Your task to perform on an android device: turn off location history Image 0: 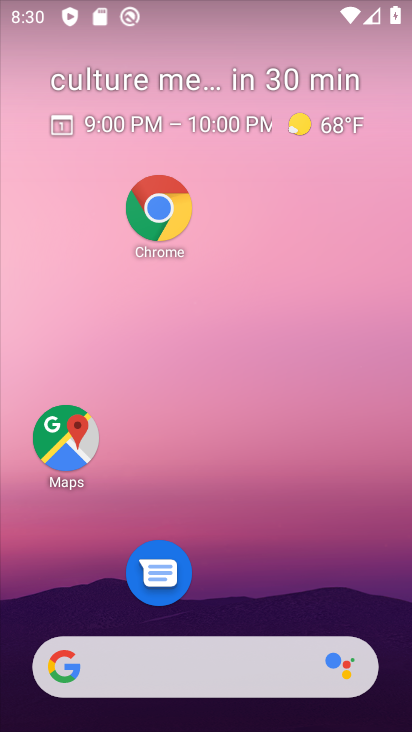
Step 0: drag from (233, 707) to (181, 121)
Your task to perform on an android device: turn off location history Image 1: 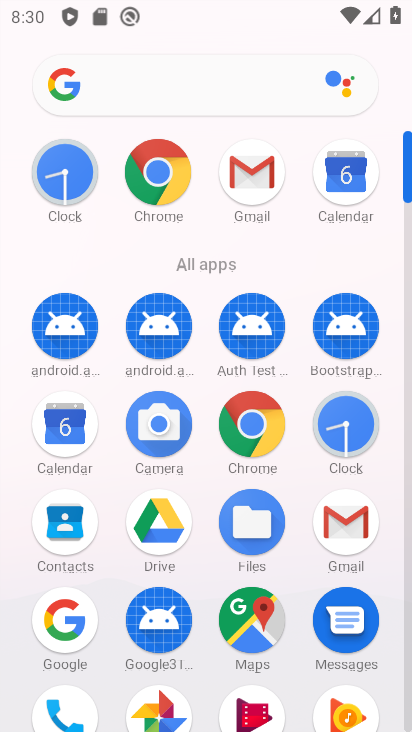
Step 1: click (250, 619)
Your task to perform on an android device: turn off location history Image 2: 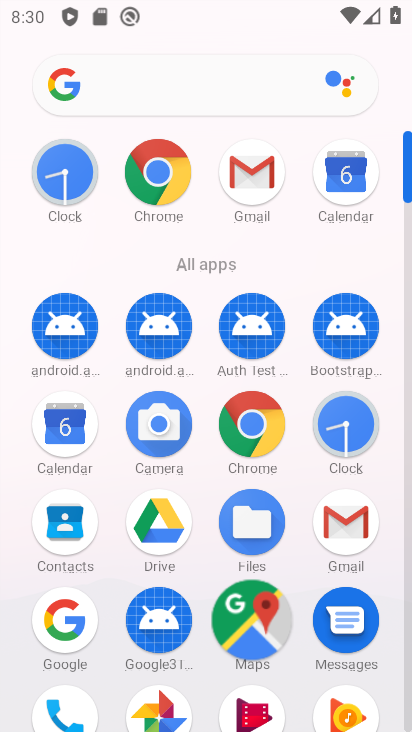
Step 2: click (250, 619)
Your task to perform on an android device: turn off location history Image 3: 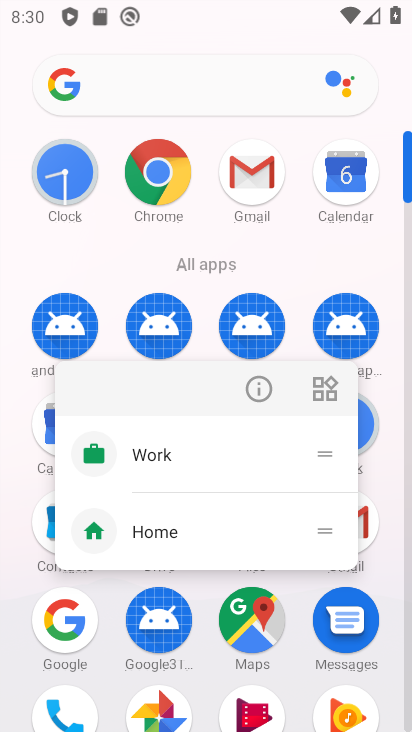
Step 3: click (256, 614)
Your task to perform on an android device: turn off location history Image 4: 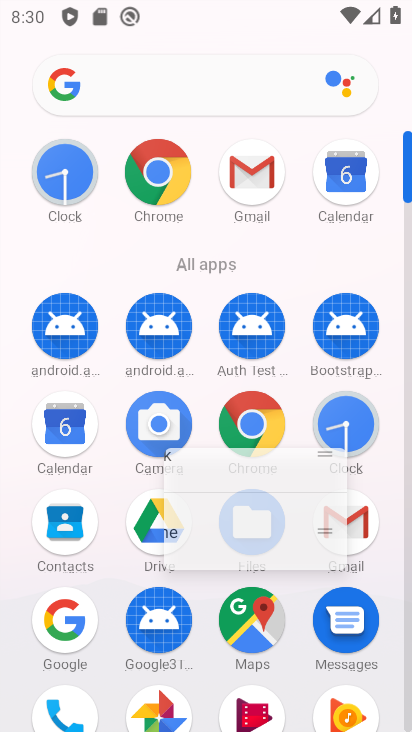
Step 4: click (256, 613)
Your task to perform on an android device: turn off location history Image 5: 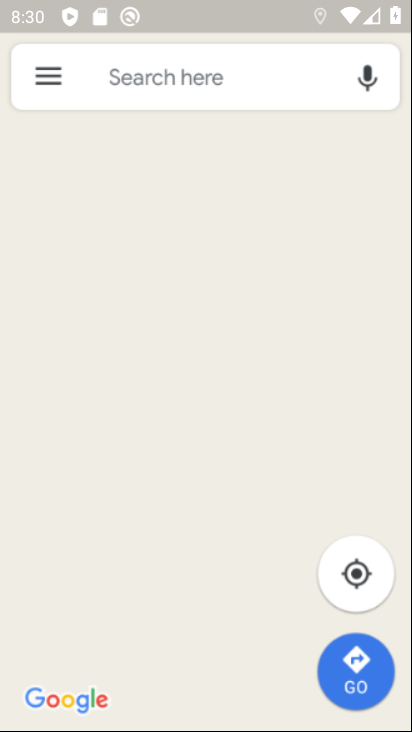
Step 5: click (256, 613)
Your task to perform on an android device: turn off location history Image 6: 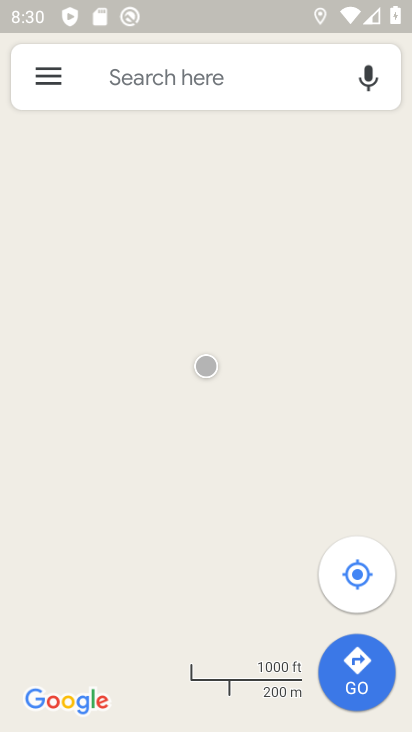
Step 6: click (50, 71)
Your task to perform on an android device: turn off location history Image 7: 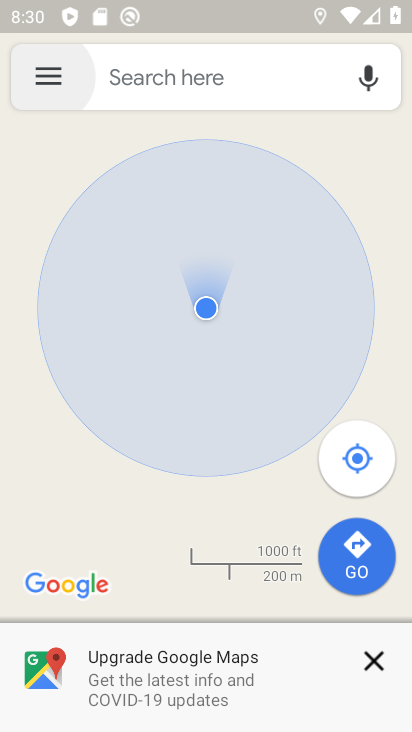
Step 7: click (49, 76)
Your task to perform on an android device: turn off location history Image 8: 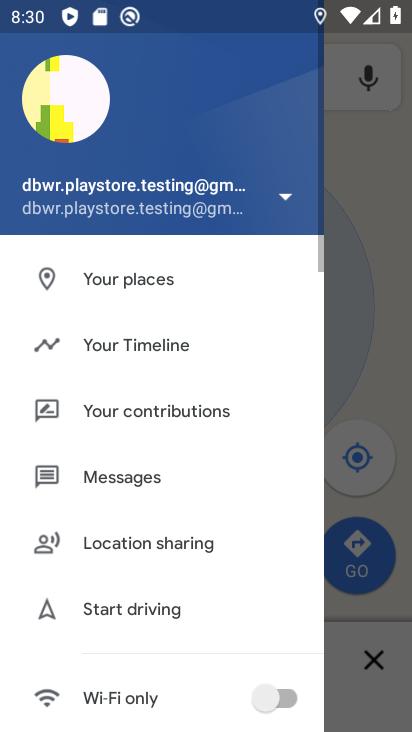
Step 8: click (137, 346)
Your task to perform on an android device: turn off location history Image 9: 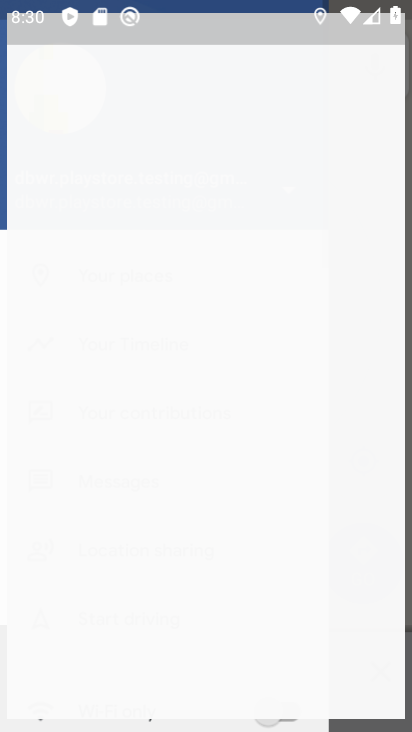
Step 9: click (141, 346)
Your task to perform on an android device: turn off location history Image 10: 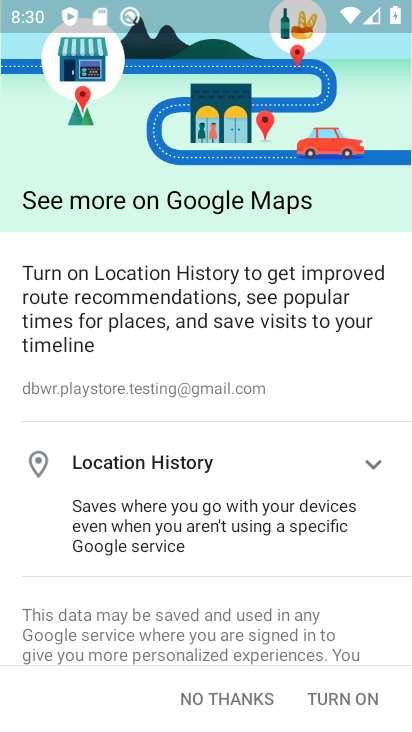
Step 10: click (342, 709)
Your task to perform on an android device: turn off location history Image 11: 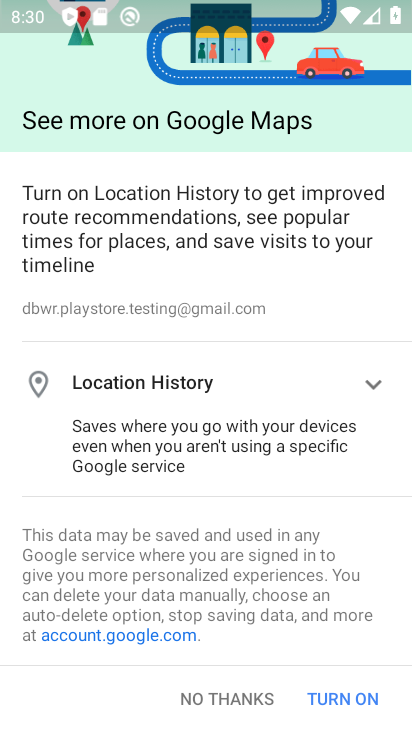
Step 11: drag from (281, 581) to (251, 298)
Your task to perform on an android device: turn off location history Image 12: 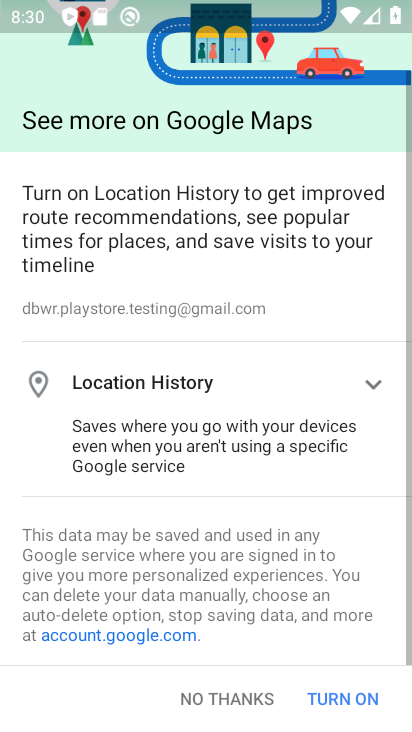
Step 12: drag from (277, 495) to (239, 243)
Your task to perform on an android device: turn off location history Image 13: 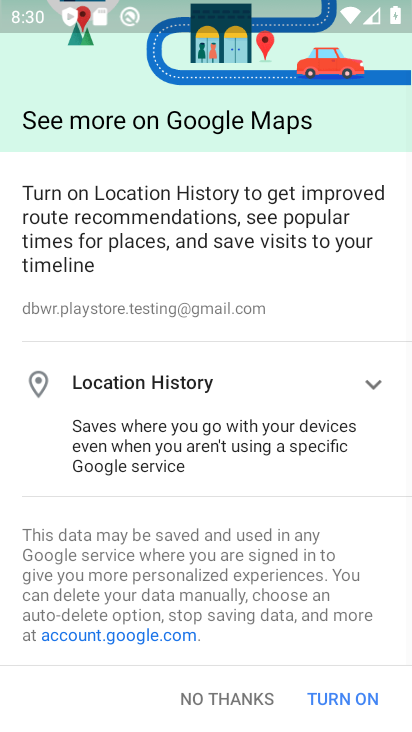
Step 13: click (345, 694)
Your task to perform on an android device: turn off location history Image 14: 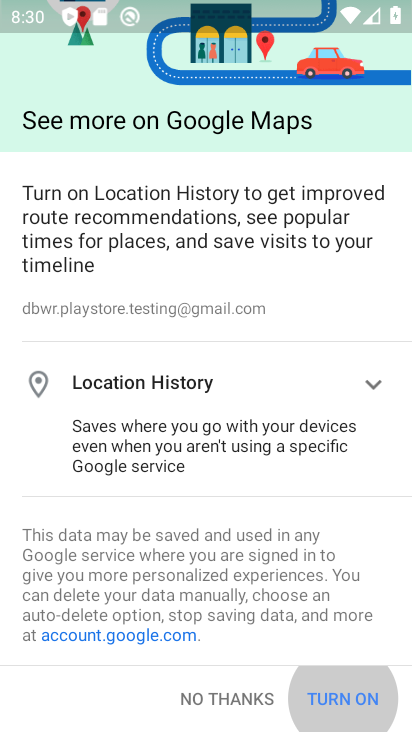
Step 14: click (344, 695)
Your task to perform on an android device: turn off location history Image 15: 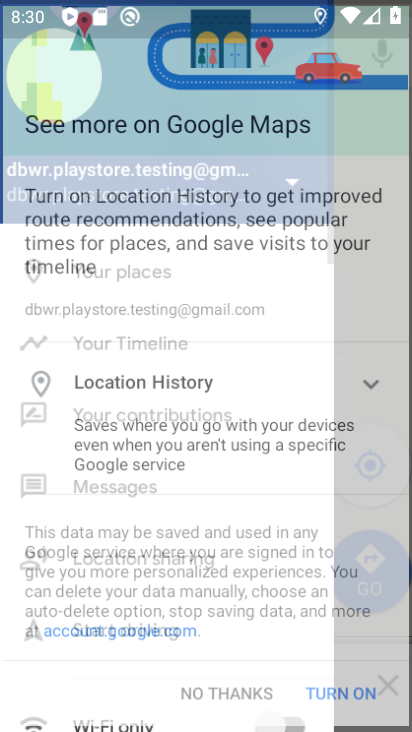
Step 15: click (254, 695)
Your task to perform on an android device: turn off location history Image 16: 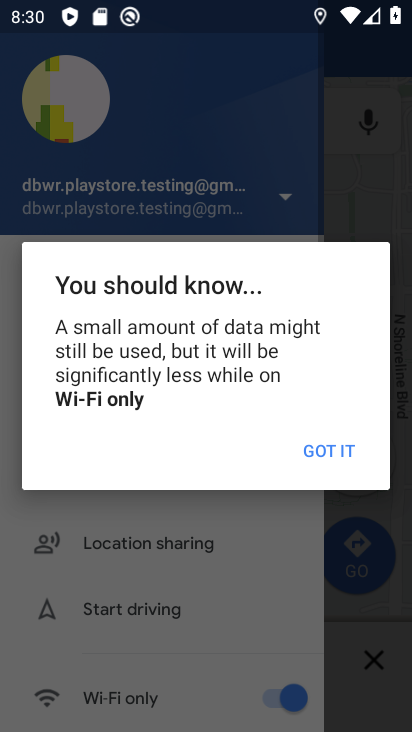
Step 16: task complete